Your task to perform on an android device: Open sound settings Image 0: 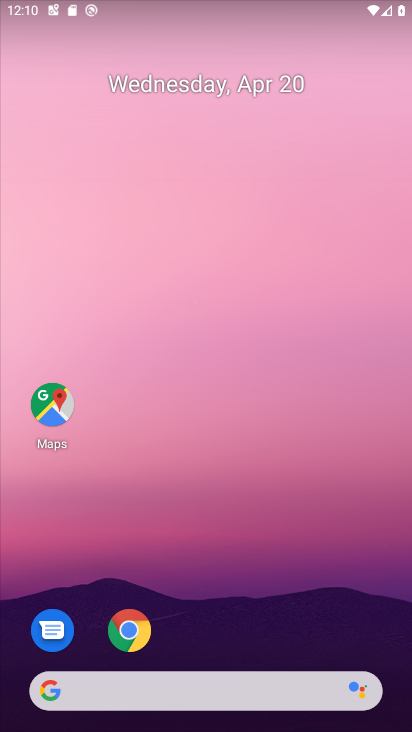
Step 0: drag from (261, 573) to (256, 108)
Your task to perform on an android device: Open sound settings Image 1: 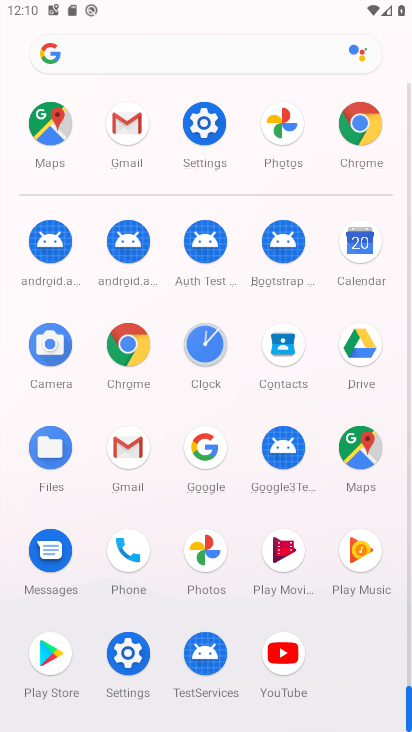
Step 1: click (205, 114)
Your task to perform on an android device: Open sound settings Image 2: 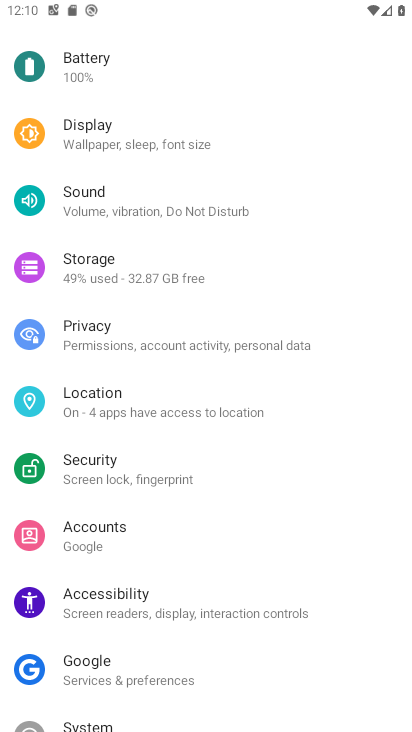
Step 2: click (130, 202)
Your task to perform on an android device: Open sound settings Image 3: 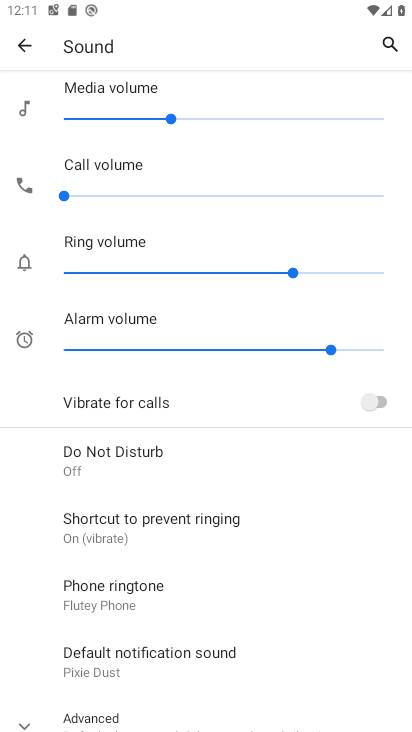
Step 3: task complete